Your task to perform on an android device: turn off sleep mode Image 0: 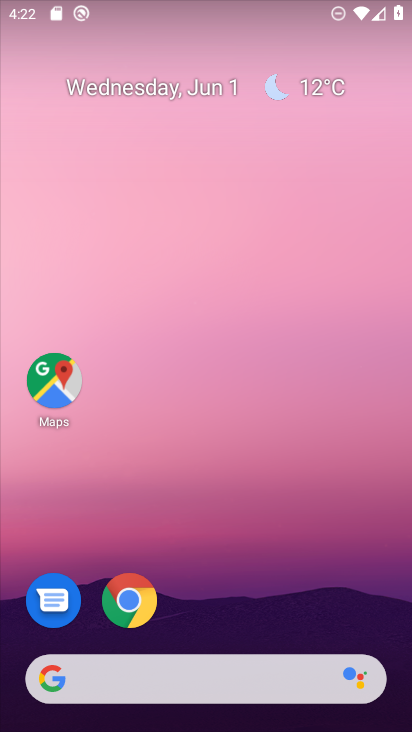
Step 0: drag from (382, 630) to (291, 103)
Your task to perform on an android device: turn off sleep mode Image 1: 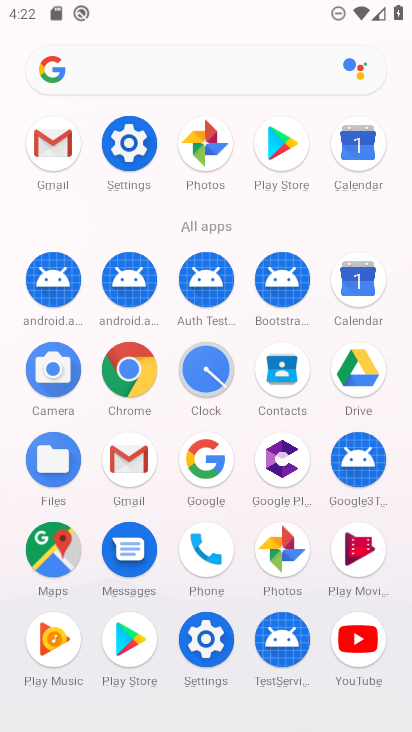
Step 1: click (207, 643)
Your task to perform on an android device: turn off sleep mode Image 2: 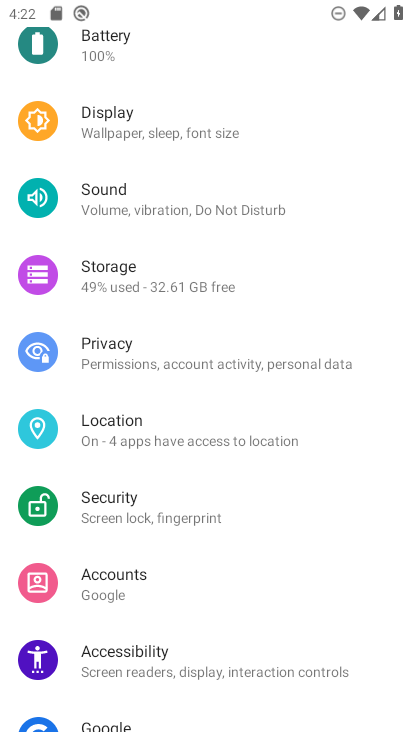
Step 2: click (152, 126)
Your task to perform on an android device: turn off sleep mode Image 3: 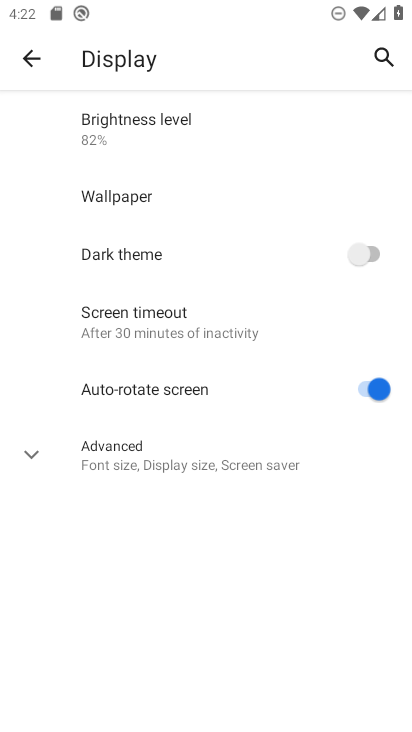
Step 3: click (38, 454)
Your task to perform on an android device: turn off sleep mode Image 4: 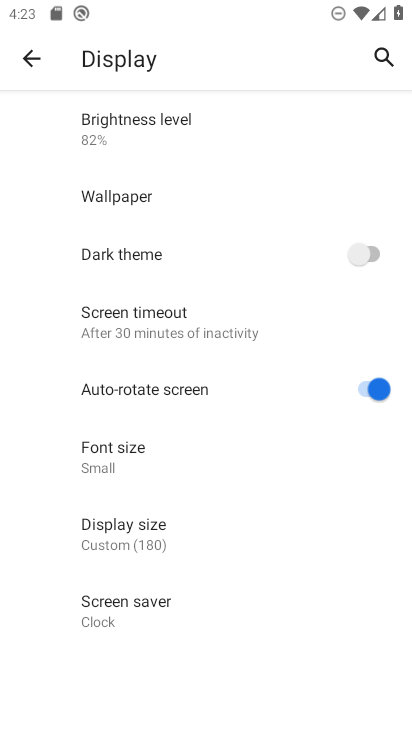
Step 4: task complete